Your task to perform on an android device: set the stopwatch Image 0: 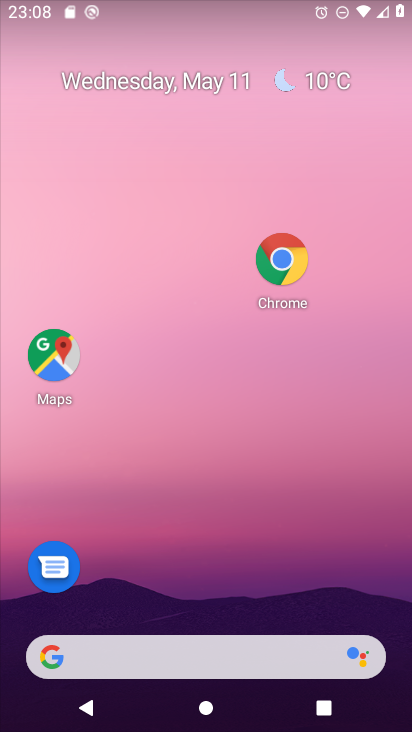
Step 0: drag from (186, 661) to (347, 111)
Your task to perform on an android device: set the stopwatch Image 1: 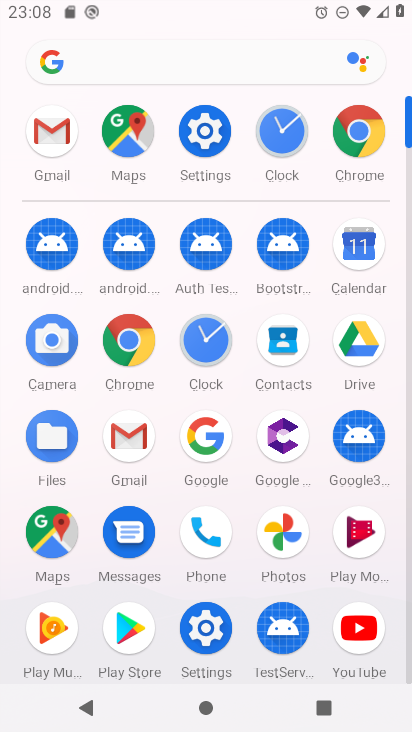
Step 1: click (290, 138)
Your task to perform on an android device: set the stopwatch Image 2: 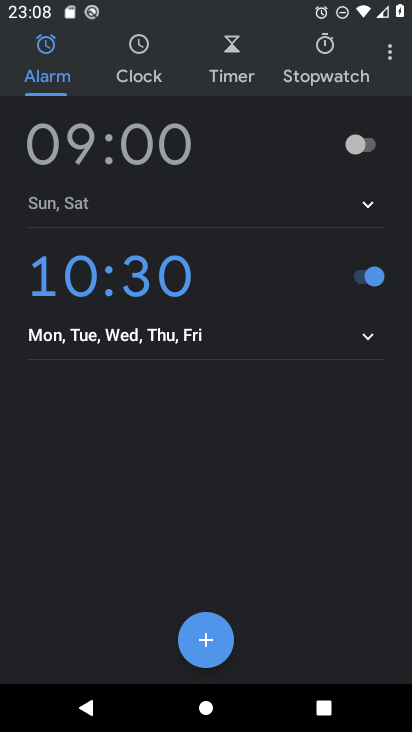
Step 2: click (338, 73)
Your task to perform on an android device: set the stopwatch Image 3: 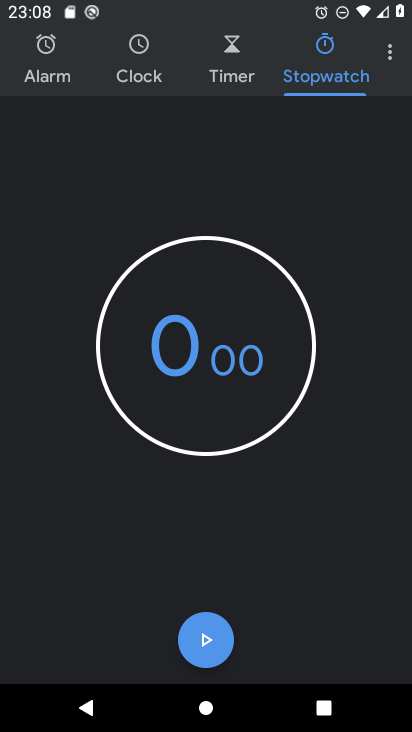
Step 3: click (187, 363)
Your task to perform on an android device: set the stopwatch Image 4: 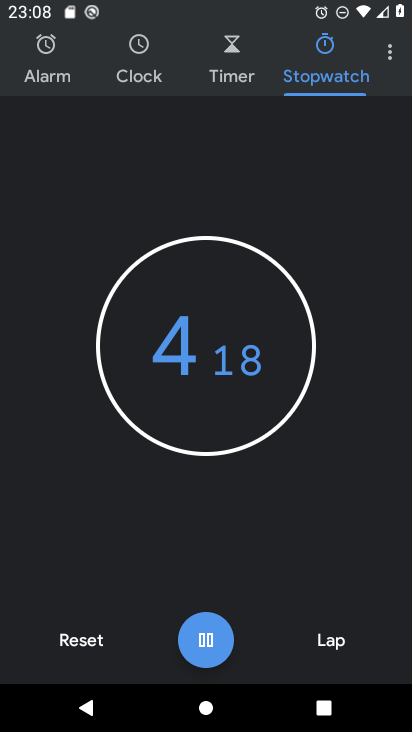
Step 4: click (206, 350)
Your task to perform on an android device: set the stopwatch Image 5: 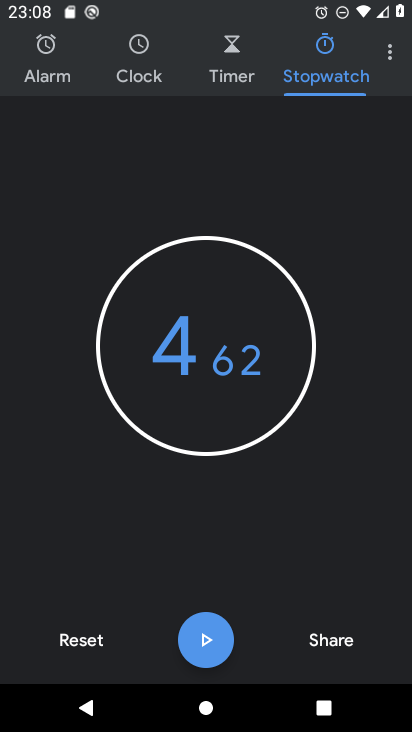
Step 5: task complete